Your task to perform on an android device: Go to privacy settings Image 0: 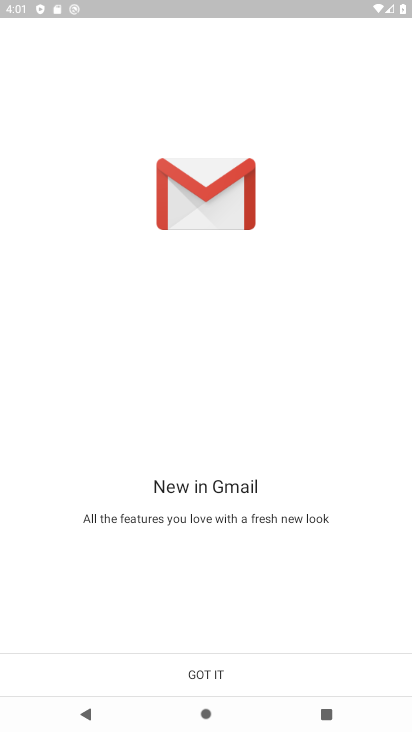
Step 0: click (243, 683)
Your task to perform on an android device: Go to privacy settings Image 1: 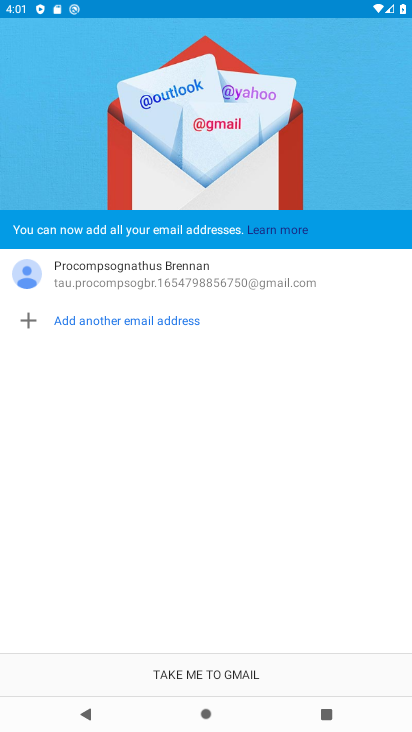
Step 1: click (243, 683)
Your task to perform on an android device: Go to privacy settings Image 2: 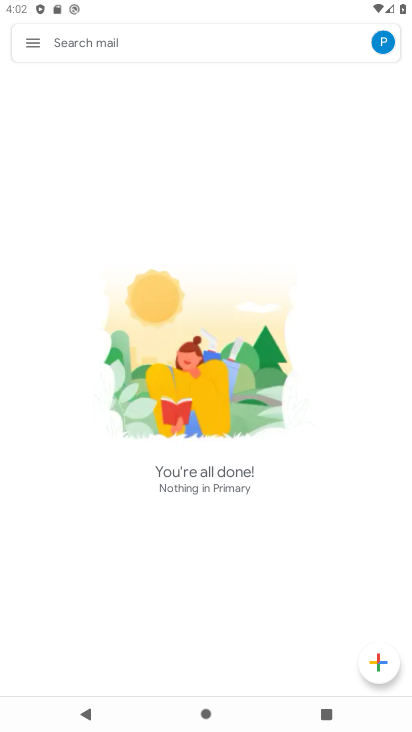
Step 2: press home button
Your task to perform on an android device: Go to privacy settings Image 3: 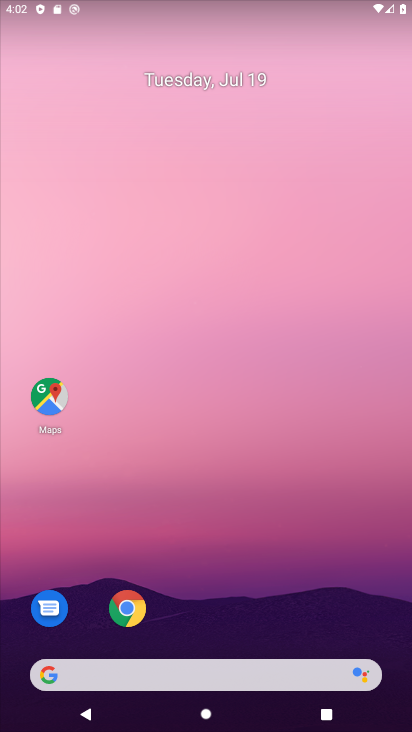
Step 3: drag from (183, 645) to (339, 158)
Your task to perform on an android device: Go to privacy settings Image 4: 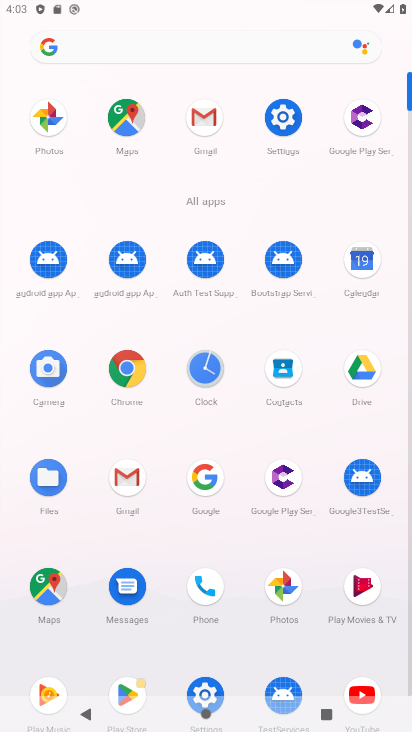
Step 4: click (294, 132)
Your task to perform on an android device: Go to privacy settings Image 5: 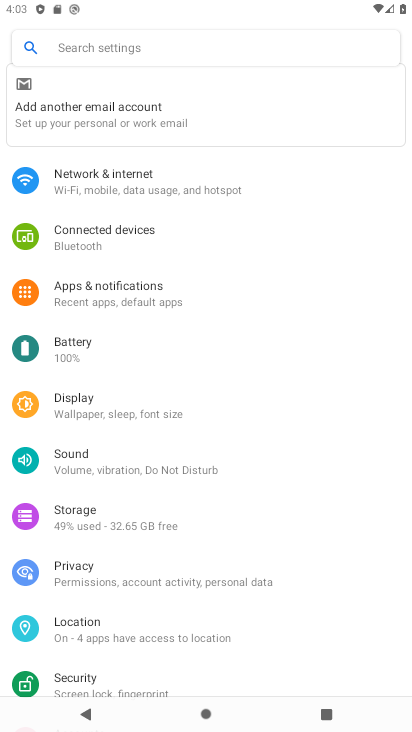
Step 5: click (76, 566)
Your task to perform on an android device: Go to privacy settings Image 6: 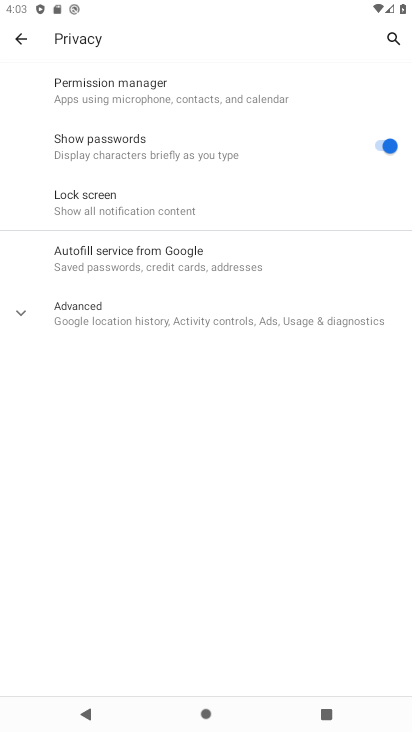
Step 6: task complete